Your task to perform on an android device: Open Chrome and go to settings Image 0: 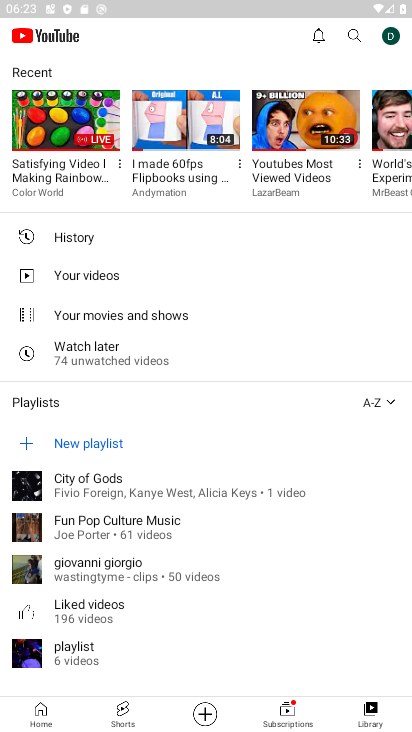
Step 0: press home button
Your task to perform on an android device: Open Chrome and go to settings Image 1: 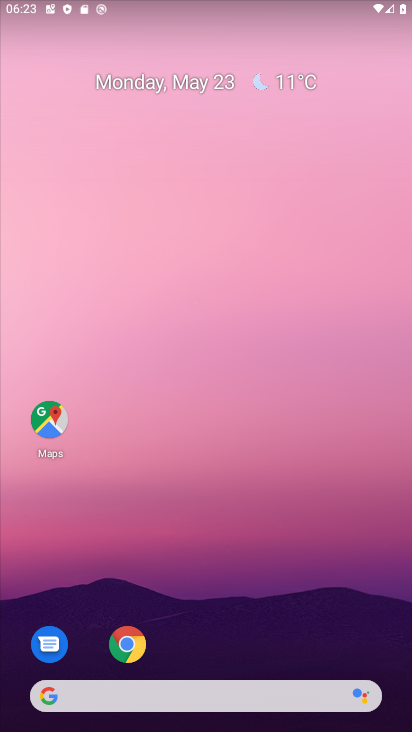
Step 1: click (128, 651)
Your task to perform on an android device: Open Chrome and go to settings Image 2: 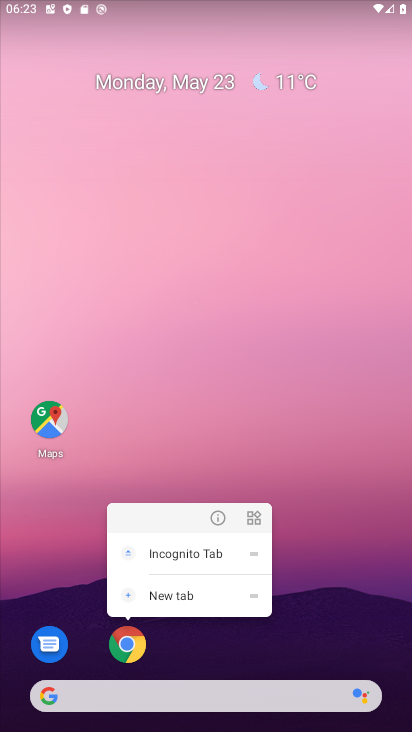
Step 2: click (127, 651)
Your task to perform on an android device: Open Chrome and go to settings Image 3: 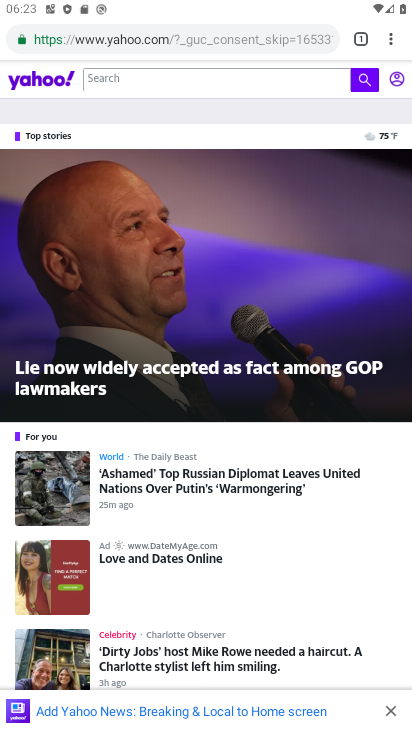
Step 3: click (389, 42)
Your task to perform on an android device: Open Chrome and go to settings Image 4: 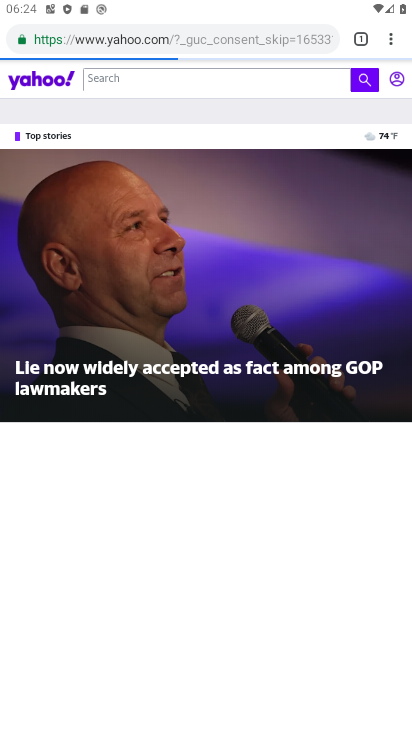
Step 4: click (390, 40)
Your task to perform on an android device: Open Chrome and go to settings Image 5: 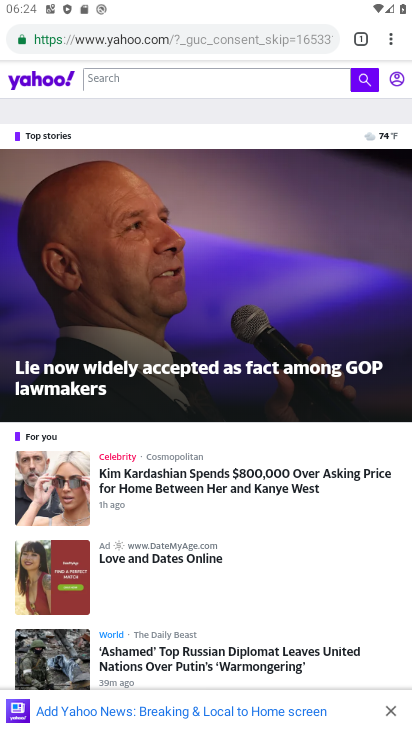
Step 5: click (391, 39)
Your task to perform on an android device: Open Chrome and go to settings Image 6: 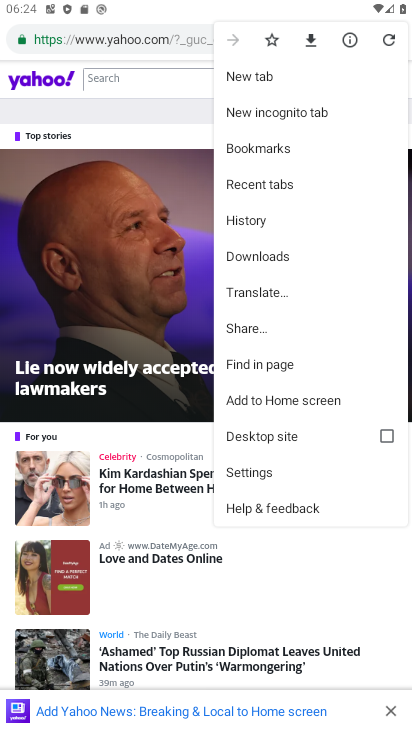
Step 6: click (253, 479)
Your task to perform on an android device: Open Chrome and go to settings Image 7: 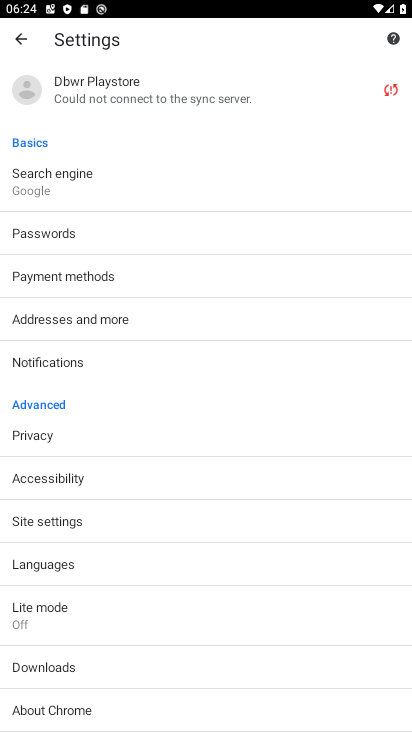
Step 7: task complete